Your task to perform on an android device: Open sound settings Image 0: 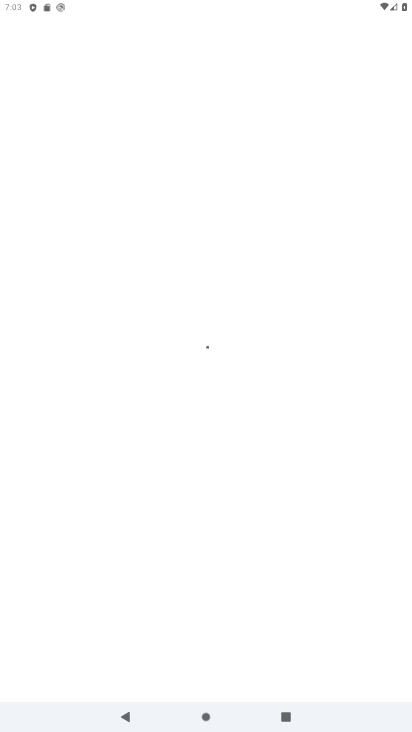
Step 0: press home button
Your task to perform on an android device: Open sound settings Image 1: 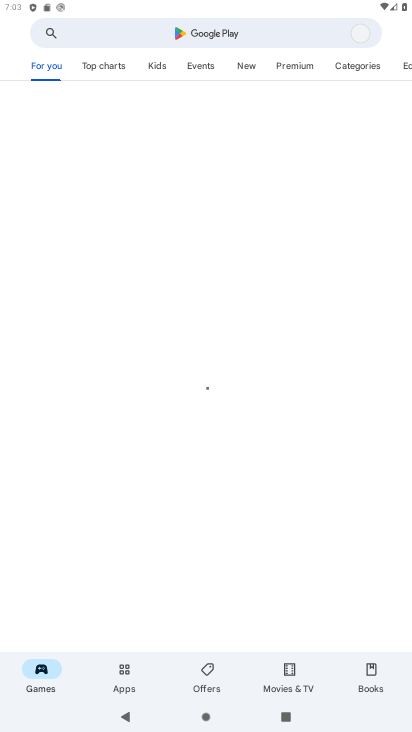
Step 1: drag from (399, 658) to (260, 49)
Your task to perform on an android device: Open sound settings Image 2: 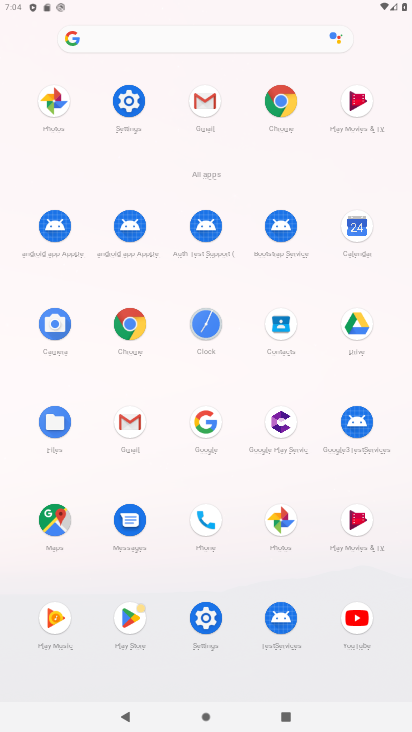
Step 2: click (197, 617)
Your task to perform on an android device: Open sound settings Image 3: 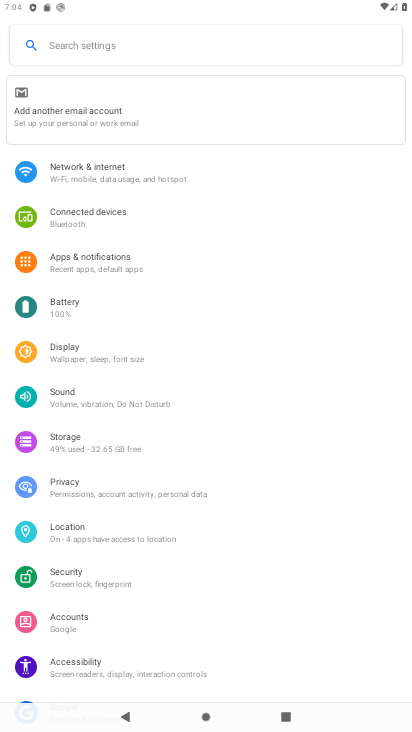
Step 3: click (48, 406)
Your task to perform on an android device: Open sound settings Image 4: 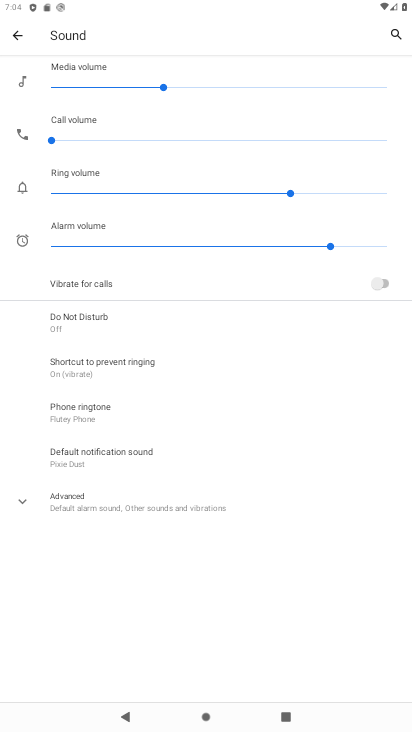
Step 4: task complete